Your task to perform on an android device: turn off data saver in the chrome app Image 0: 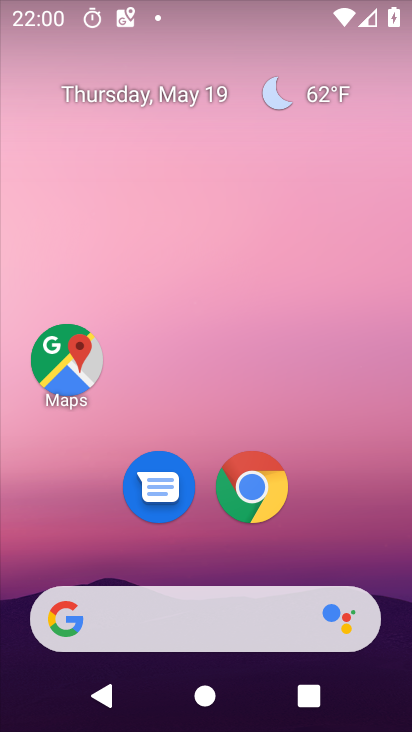
Step 0: click (252, 477)
Your task to perform on an android device: turn off data saver in the chrome app Image 1: 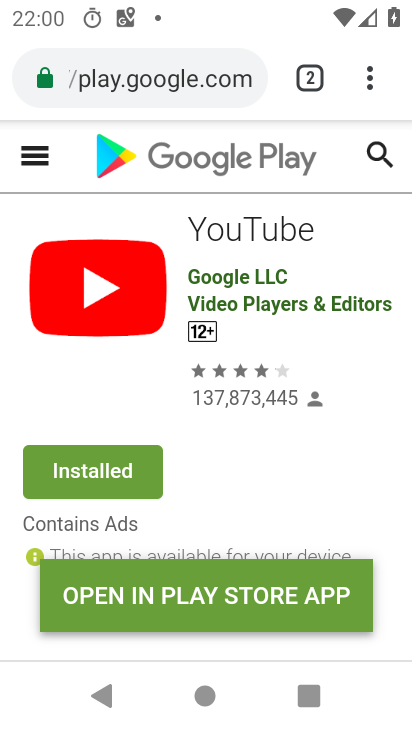
Step 1: click (370, 75)
Your task to perform on an android device: turn off data saver in the chrome app Image 2: 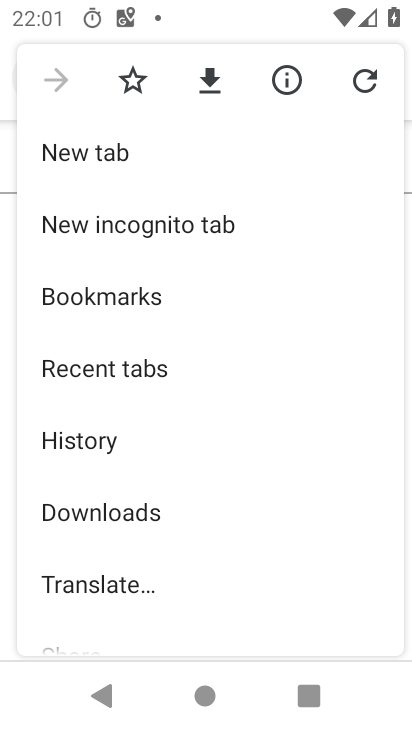
Step 2: drag from (199, 563) to (203, 300)
Your task to perform on an android device: turn off data saver in the chrome app Image 3: 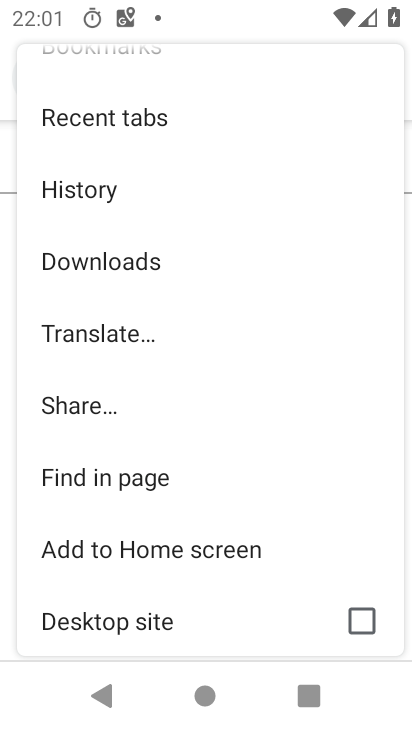
Step 3: click (195, 575)
Your task to perform on an android device: turn off data saver in the chrome app Image 4: 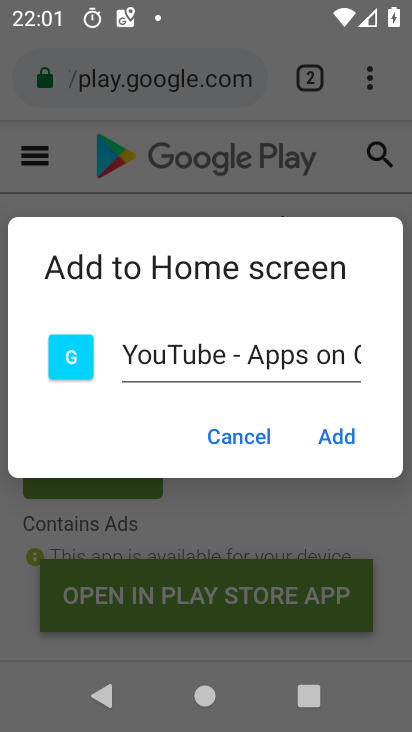
Step 4: click (240, 455)
Your task to perform on an android device: turn off data saver in the chrome app Image 5: 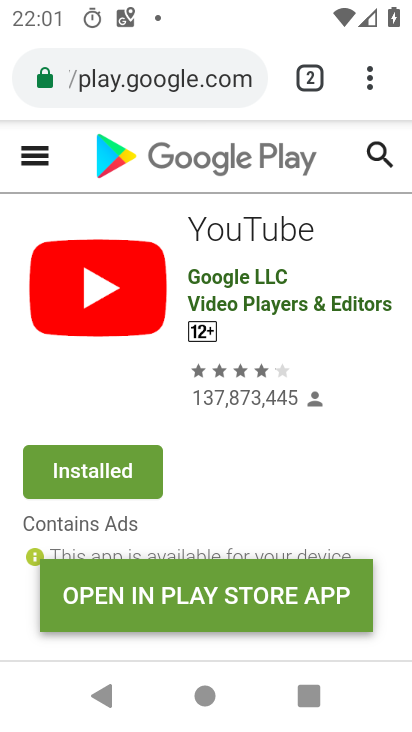
Step 5: click (376, 76)
Your task to perform on an android device: turn off data saver in the chrome app Image 6: 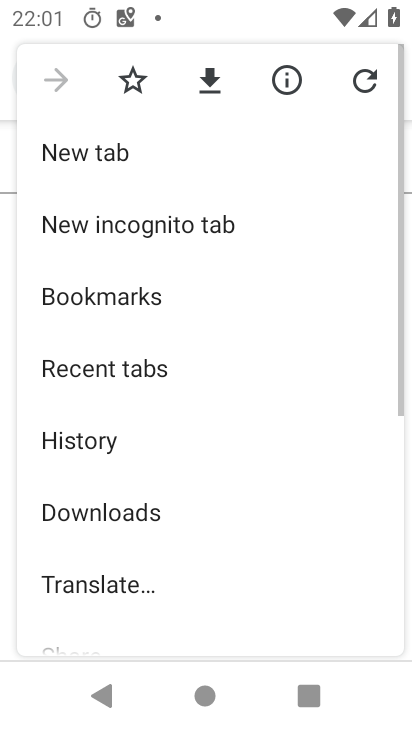
Step 6: drag from (282, 514) to (205, 202)
Your task to perform on an android device: turn off data saver in the chrome app Image 7: 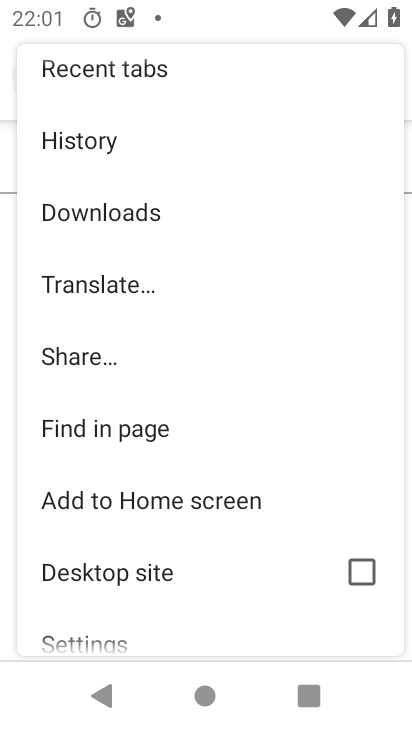
Step 7: drag from (213, 595) to (226, 149)
Your task to perform on an android device: turn off data saver in the chrome app Image 8: 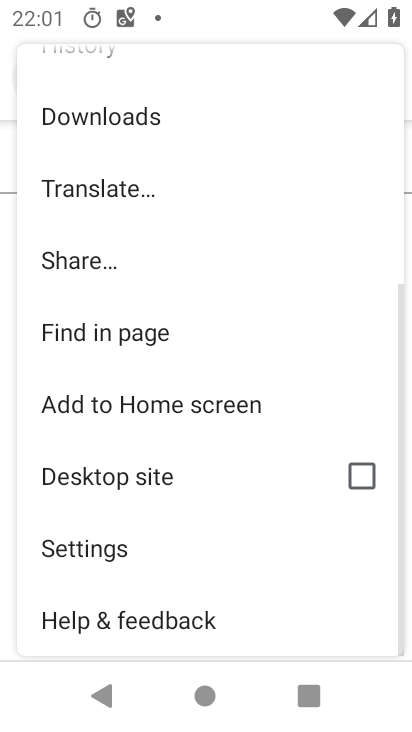
Step 8: click (107, 565)
Your task to perform on an android device: turn off data saver in the chrome app Image 9: 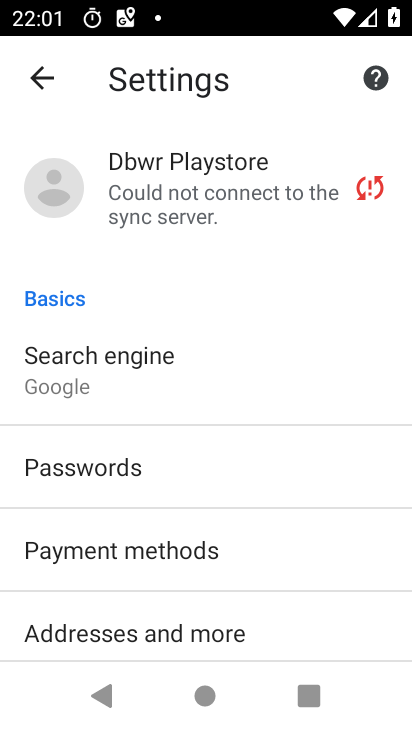
Step 9: drag from (285, 583) to (242, 392)
Your task to perform on an android device: turn off data saver in the chrome app Image 10: 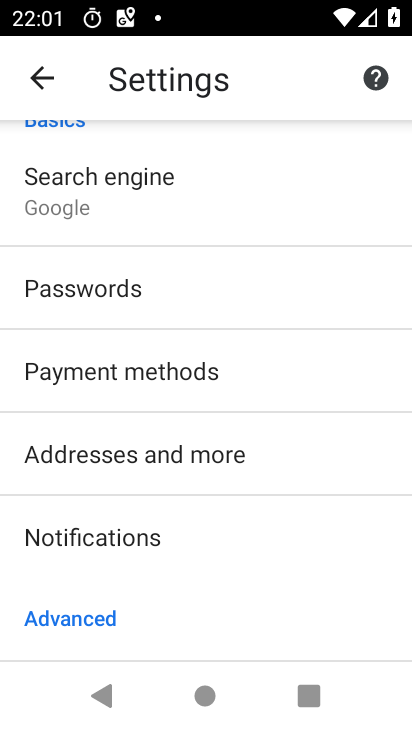
Step 10: drag from (233, 566) to (234, 284)
Your task to perform on an android device: turn off data saver in the chrome app Image 11: 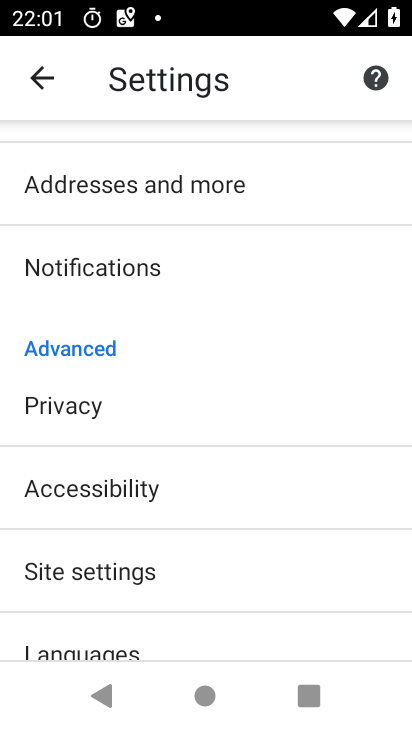
Step 11: drag from (205, 600) to (204, 367)
Your task to perform on an android device: turn off data saver in the chrome app Image 12: 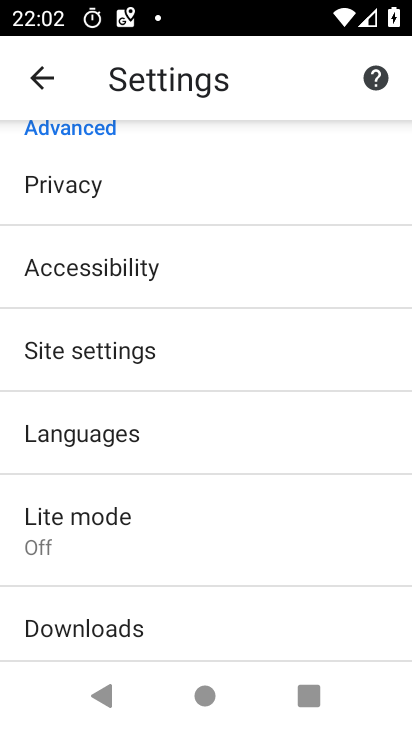
Step 12: click (138, 521)
Your task to perform on an android device: turn off data saver in the chrome app Image 13: 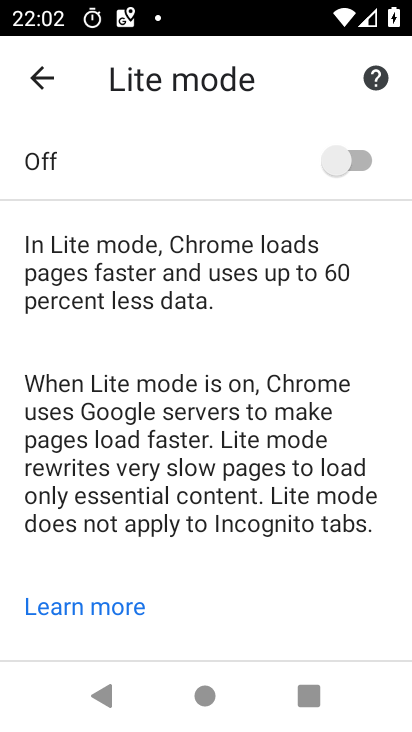
Step 13: task complete